Your task to perform on an android device: change the upload size in google photos Image 0: 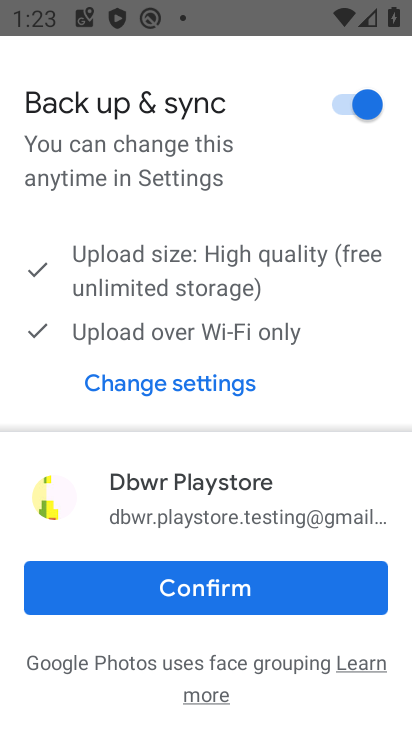
Step 0: press home button
Your task to perform on an android device: change the upload size in google photos Image 1: 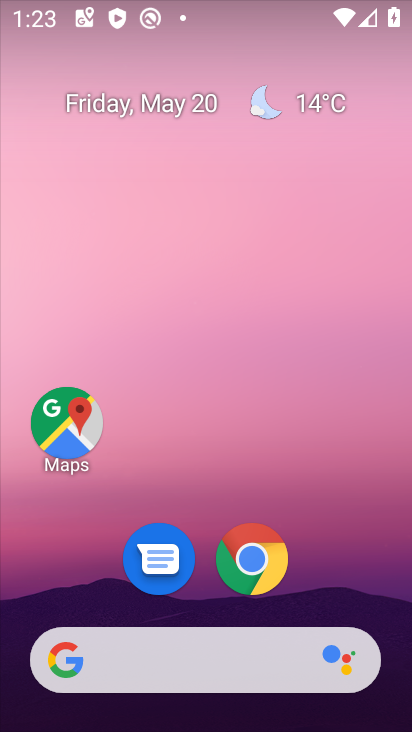
Step 1: drag from (375, 586) to (298, 172)
Your task to perform on an android device: change the upload size in google photos Image 2: 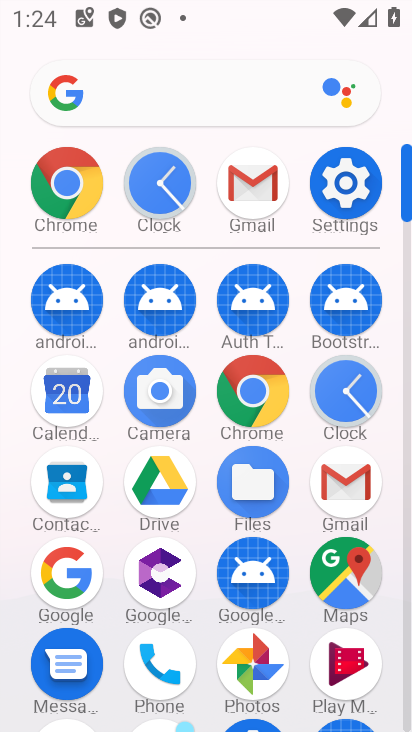
Step 2: click (285, 676)
Your task to perform on an android device: change the upload size in google photos Image 3: 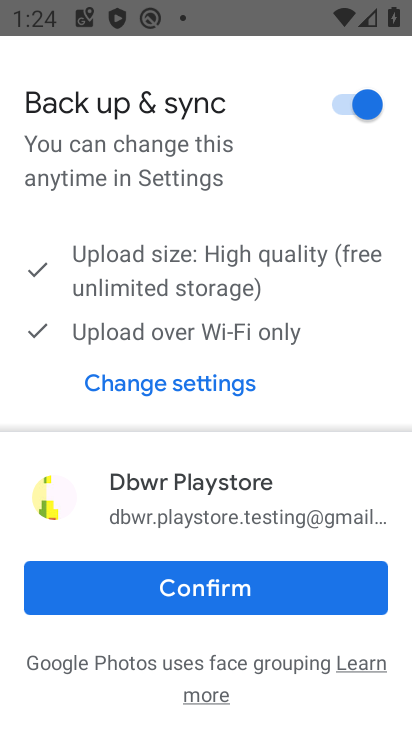
Step 3: click (247, 574)
Your task to perform on an android device: change the upload size in google photos Image 4: 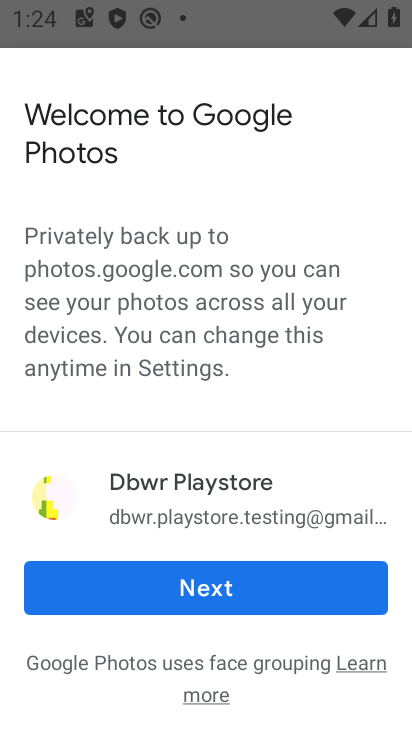
Step 4: click (242, 606)
Your task to perform on an android device: change the upload size in google photos Image 5: 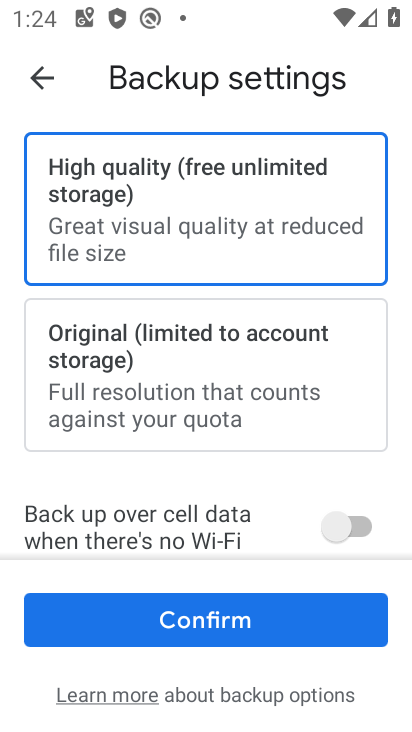
Step 5: click (242, 606)
Your task to perform on an android device: change the upload size in google photos Image 6: 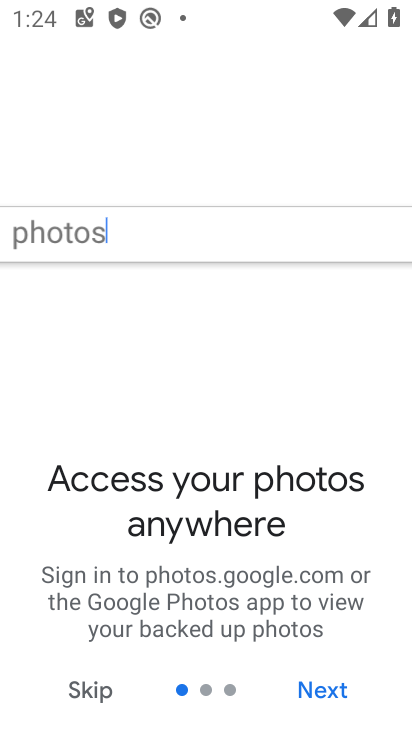
Step 6: task complete